Your task to perform on an android device: Clear the cart on bestbuy.com. Search for logitech g pro on bestbuy.com, select the first entry, add it to the cart, then select checkout. Image 0: 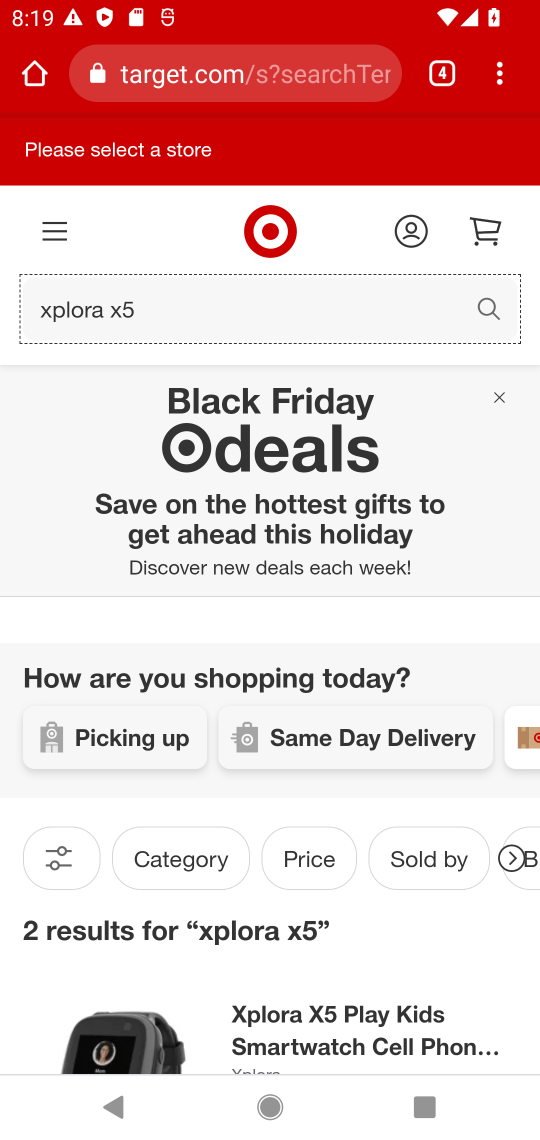
Step 0: press home button
Your task to perform on an android device: Clear the cart on bestbuy.com. Search for logitech g pro on bestbuy.com, select the first entry, add it to the cart, then select checkout. Image 1: 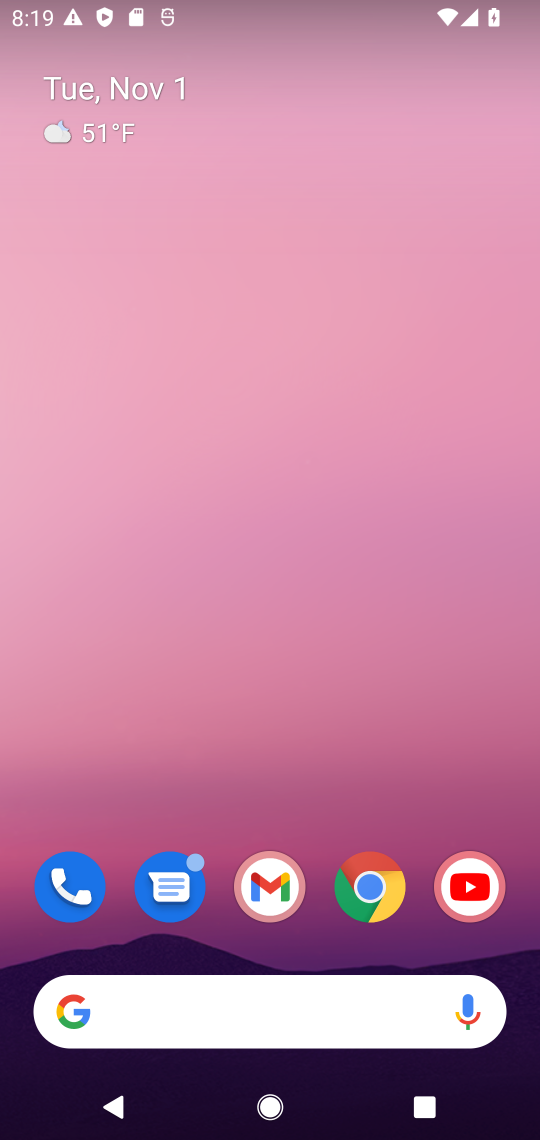
Step 1: drag from (149, 952) to (254, 339)
Your task to perform on an android device: Clear the cart on bestbuy.com. Search for logitech g pro on bestbuy.com, select the first entry, add it to the cart, then select checkout. Image 2: 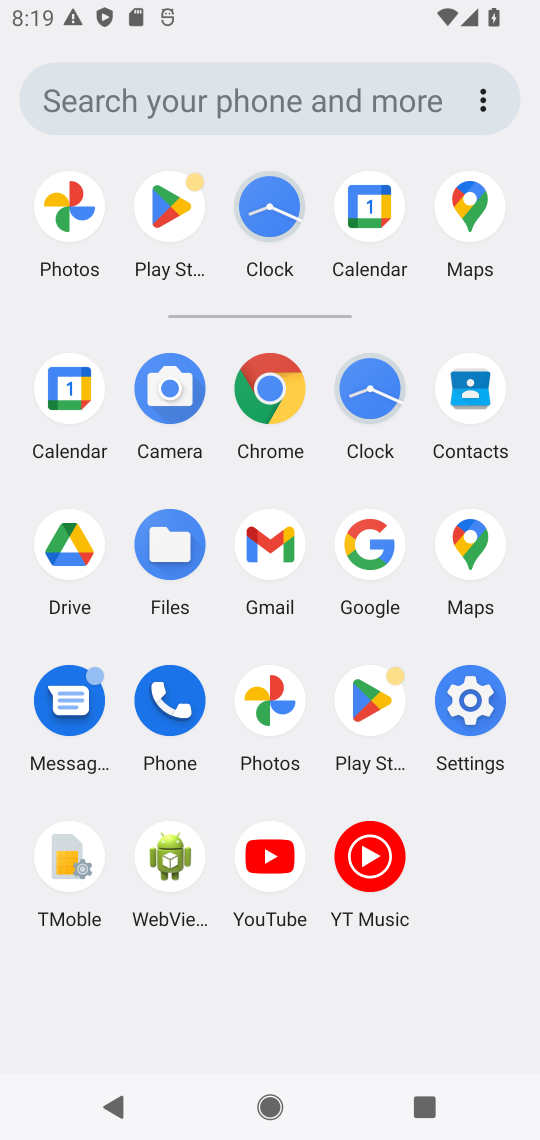
Step 2: click (375, 532)
Your task to perform on an android device: Clear the cart on bestbuy.com. Search for logitech g pro on bestbuy.com, select the first entry, add it to the cart, then select checkout. Image 3: 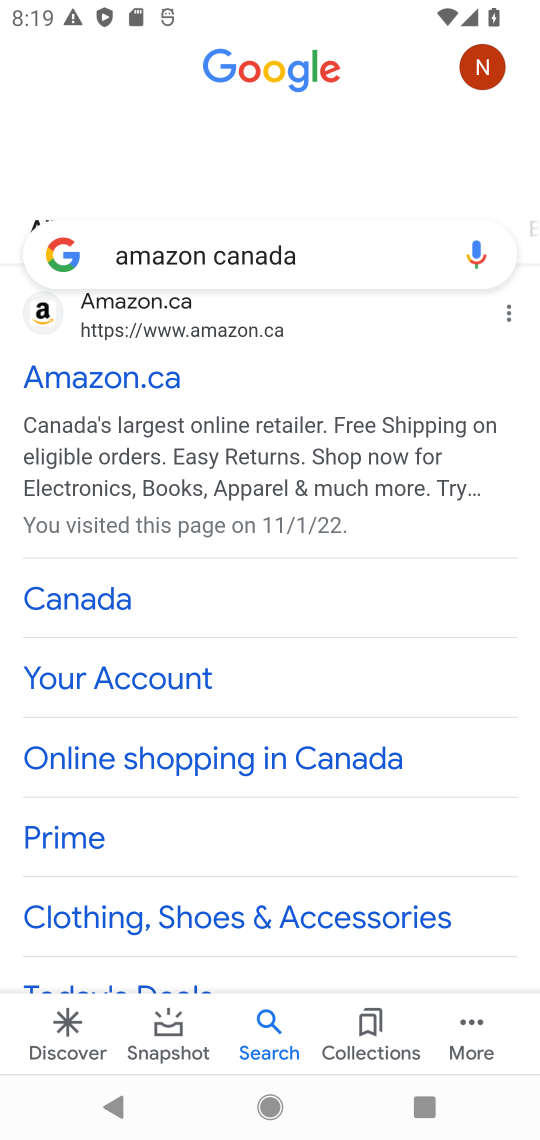
Step 3: click (237, 242)
Your task to perform on an android device: Clear the cart on bestbuy.com. Search for logitech g pro on bestbuy.com, select the first entry, add it to the cart, then select checkout. Image 4: 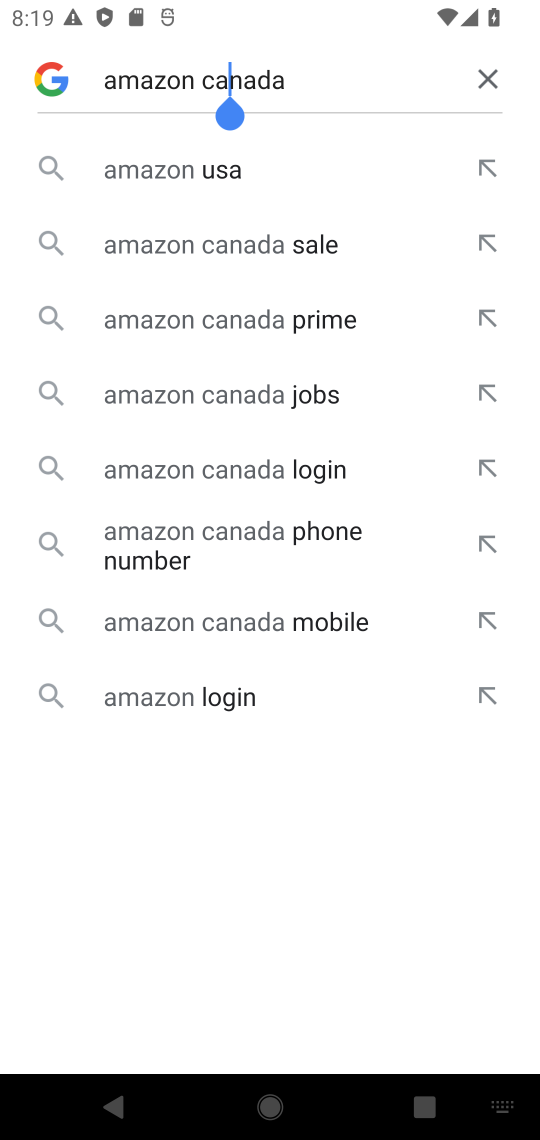
Step 4: click (476, 75)
Your task to perform on an android device: Clear the cart on bestbuy.com. Search for logitech g pro on bestbuy.com, select the first entry, add it to the cart, then select checkout. Image 5: 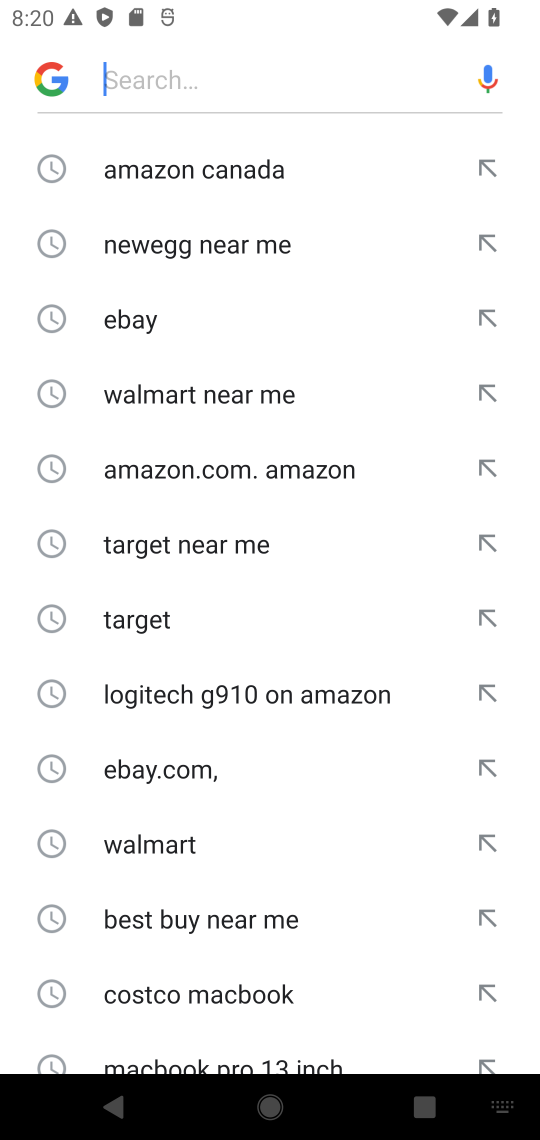
Step 5: click (204, 58)
Your task to perform on an android device: Clear the cart on bestbuy.com. Search for logitech g pro on bestbuy.com, select the first entry, add it to the cart, then select checkout. Image 6: 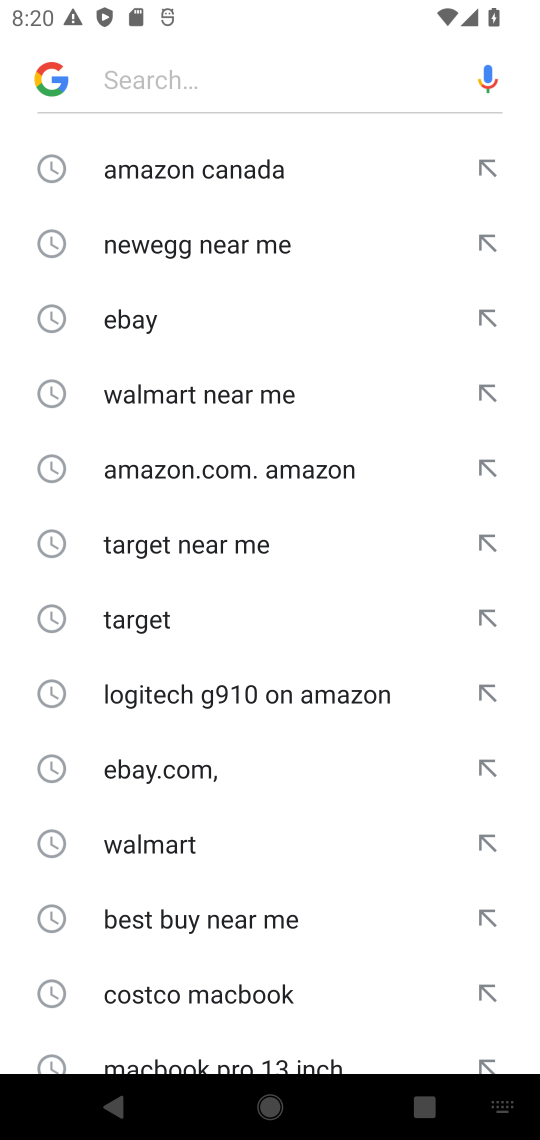
Step 6: type "bestbuy "
Your task to perform on an android device: Clear the cart on bestbuy.com. Search for logitech g pro on bestbuy.com, select the first entry, add it to the cart, then select checkout. Image 7: 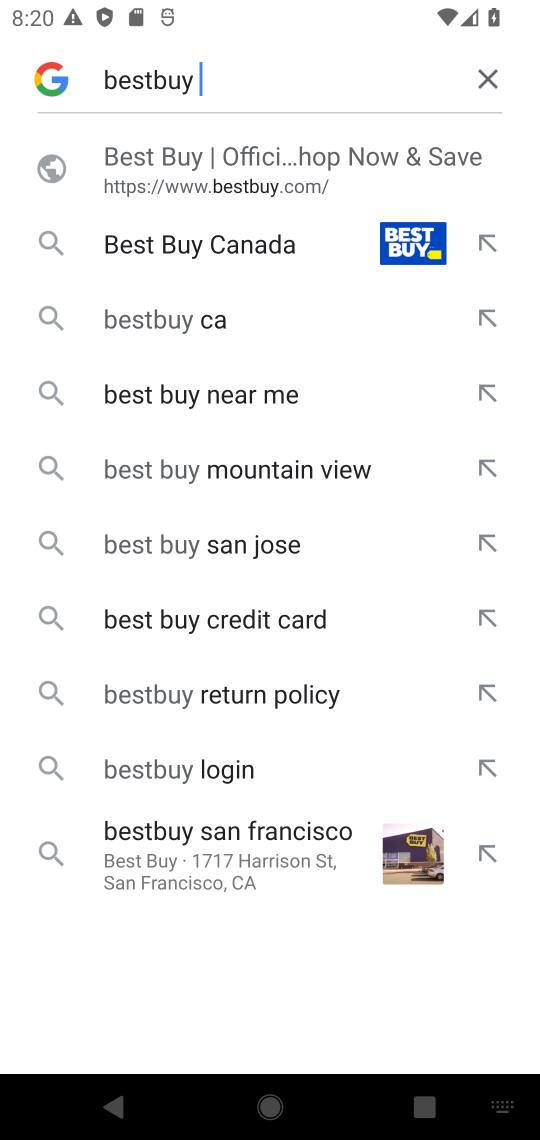
Step 7: click (202, 157)
Your task to perform on an android device: Clear the cart on bestbuy.com. Search for logitech g pro on bestbuy.com, select the first entry, add it to the cart, then select checkout. Image 8: 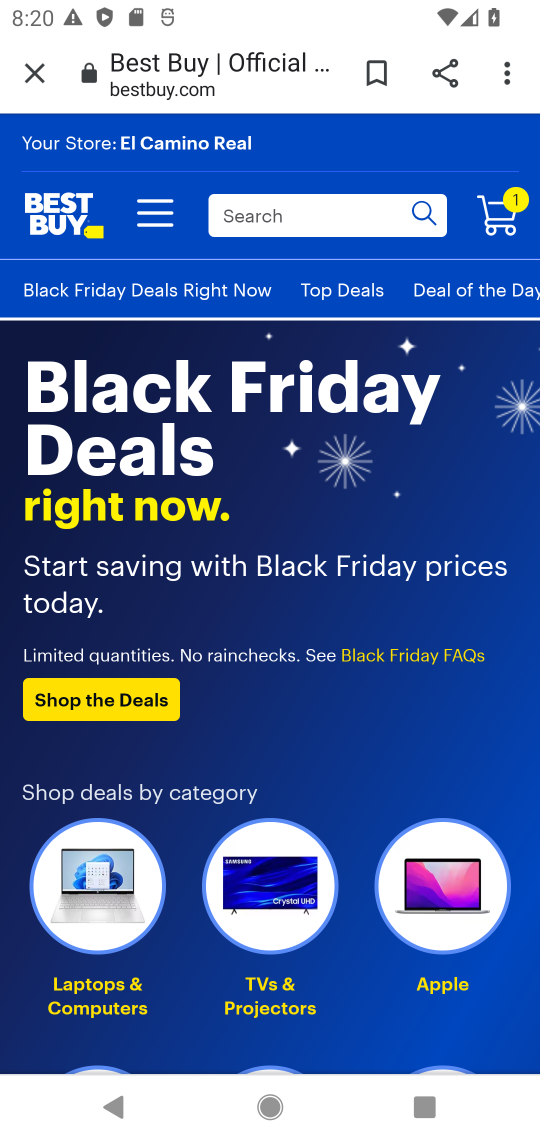
Step 8: click (281, 202)
Your task to perform on an android device: Clear the cart on bestbuy.com. Search for logitech g pro on bestbuy.com, select the first entry, add it to the cart, then select checkout. Image 9: 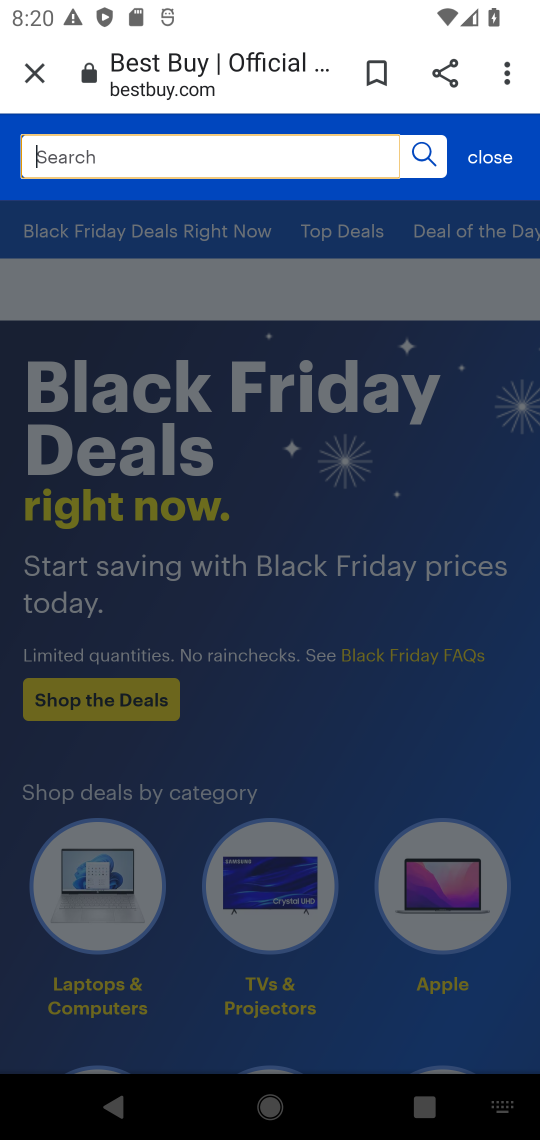
Step 9: click (297, 155)
Your task to perform on an android device: Clear the cart on bestbuy.com. Search for logitech g pro on bestbuy.com, select the first entry, add it to the cart, then select checkout. Image 10: 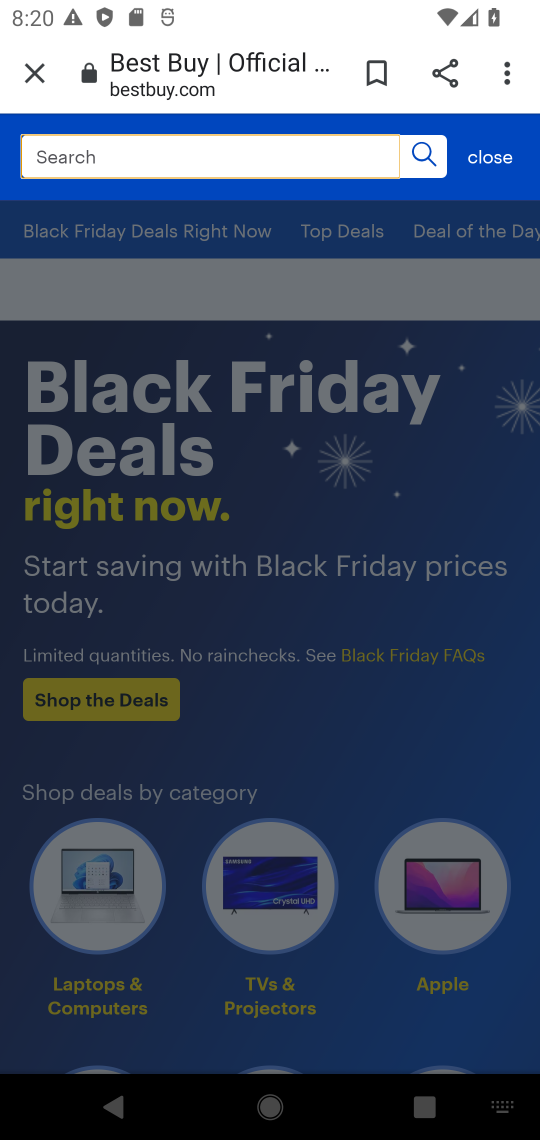
Step 10: type " logitech g pro "
Your task to perform on an android device: Clear the cart on bestbuy.com. Search for logitech g pro on bestbuy.com, select the first entry, add it to the cart, then select checkout. Image 11: 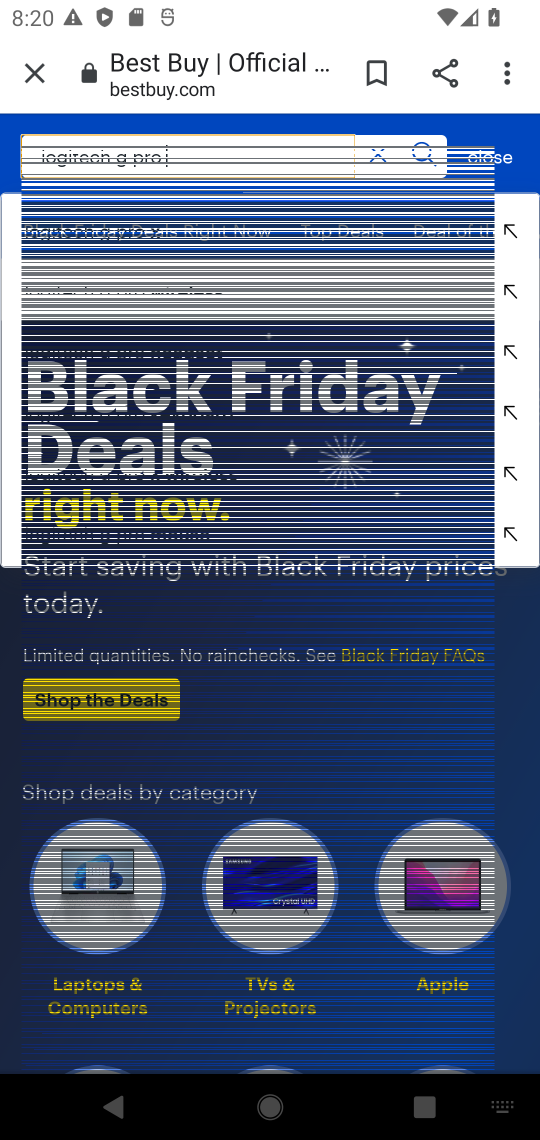
Step 11: click (114, 240)
Your task to perform on an android device: Clear the cart on bestbuy.com. Search for logitech g pro on bestbuy.com, select the first entry, add it to the cart, then select checkout. Image 12: 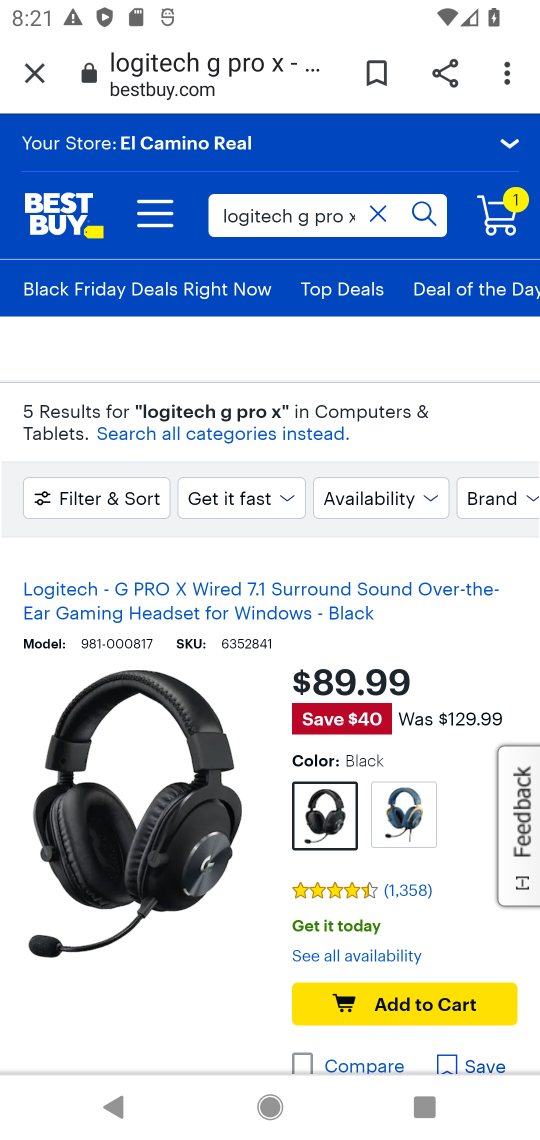
Step 12: click (406, 1000)
Your task to perform on an android device: Clear the cart on bestbuy.com. Search for logitech g pro on bestbuy.com, select the first entry, add it to the cart, then select checkout. Image 13: 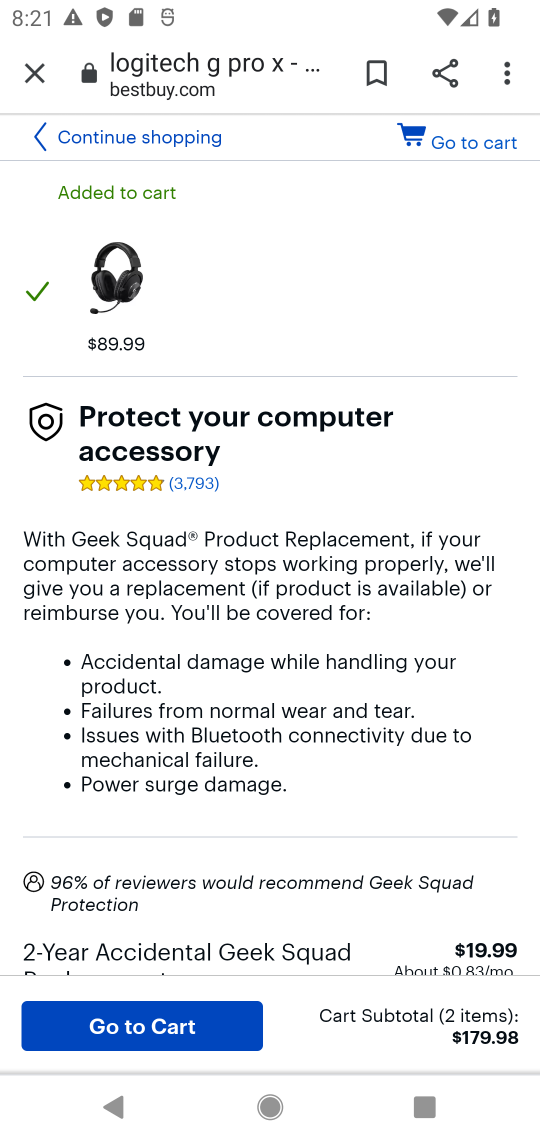
Step 13: task complete